Your task to perform on an android device: turn on javascript in the chrome app Image 0: 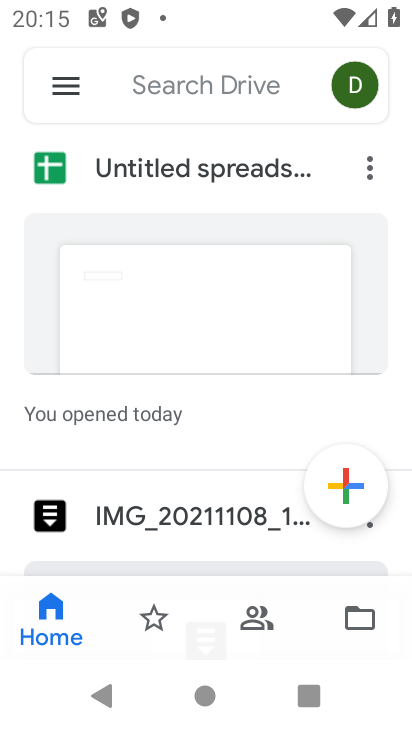
Step 0: press home button
Your task to perform on an android device: turn on javascript in the chrome app Image 1: 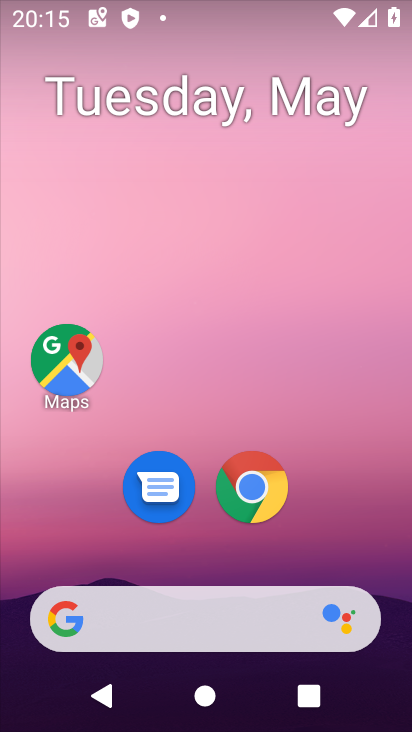
Step 1: click (263, 501)
Your task to perform on an android device: turn on javascript in the chrome app Image 2: 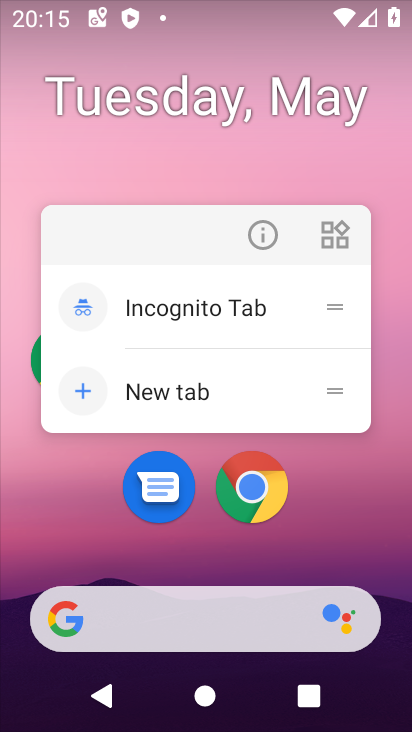
Step 2: click (263, 501)
Your task to perform on an android device: turn on javascript in the chrome app Image 3: 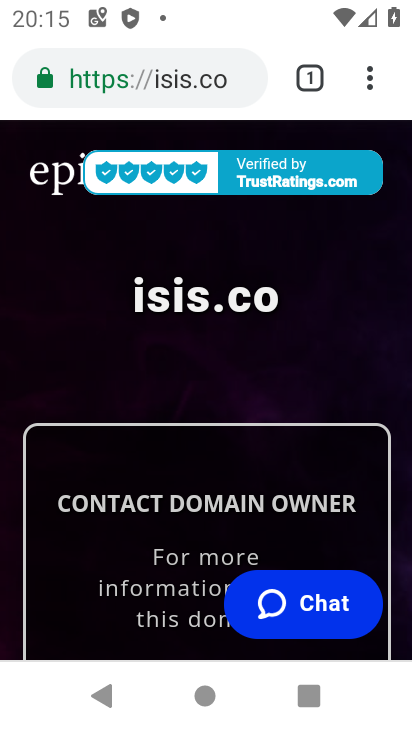
Step 3: click (363, 86)
Your task to perform on an android device: turn on javascript in the chrome app Image 4: 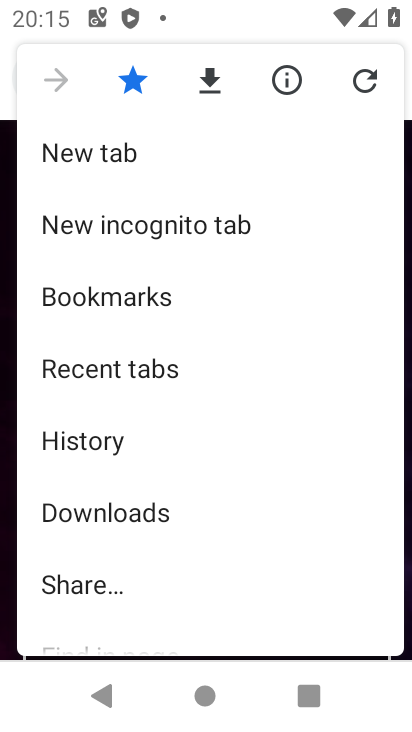
Step 4: drag from (186, 537) to (181, 360)
Your task to perform on an android device: turn on javascript in the chrome app Image 5: 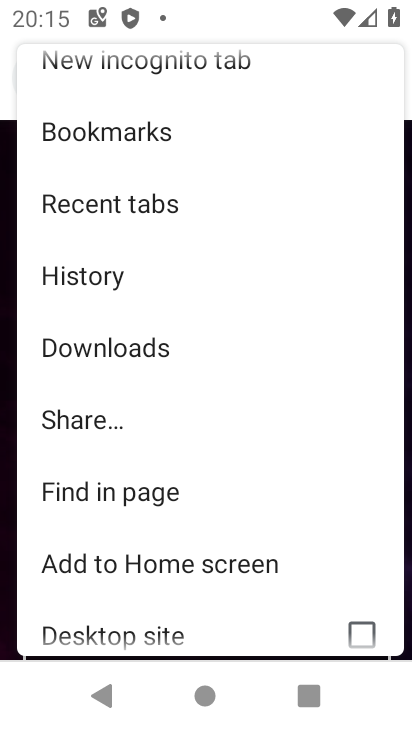
Step 5: drag from (189, 614) to (197, 363)
Your task to perform on an android device: turn on javascript in the chrome app Image 6: 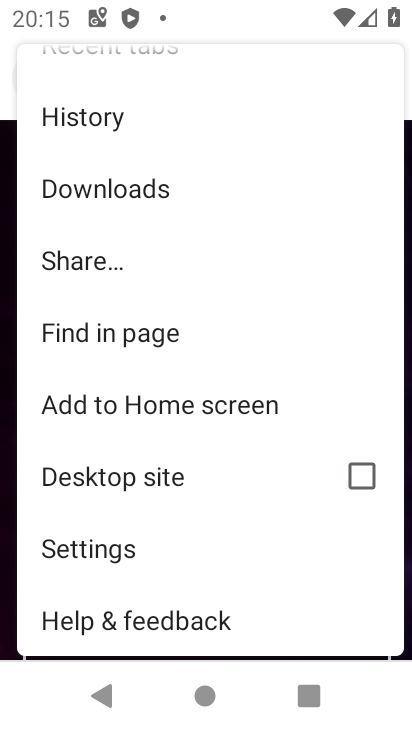
Step 6: click (174, 541)
Your task to perform on an android device: turn on javascript in the chrome app Image 7: 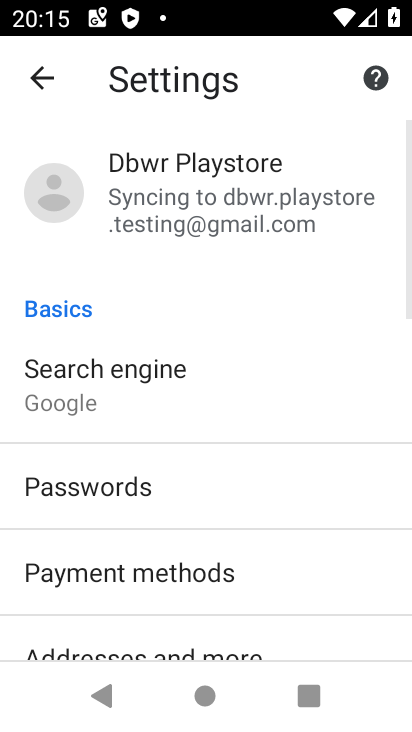
Step 7: drag from (174, 541) to (197, 227)
Your task to perform on an android device: turn on javascript in the chrome app Image 8: 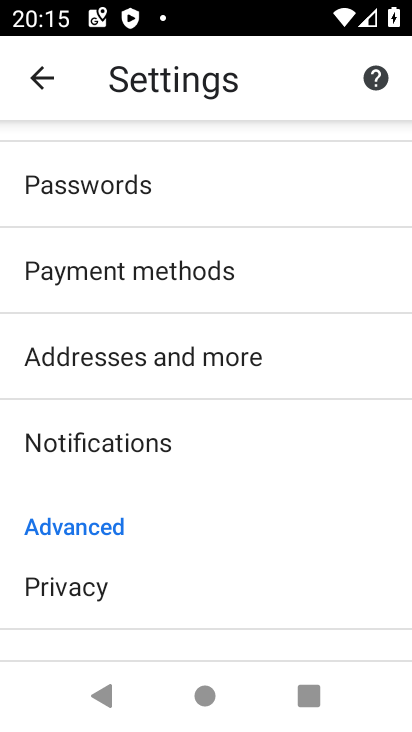
Step 8: drag from (226, 507) to (229, 338)
Your task to perform on an android device: turn on javascript in the chrome app Image 9: 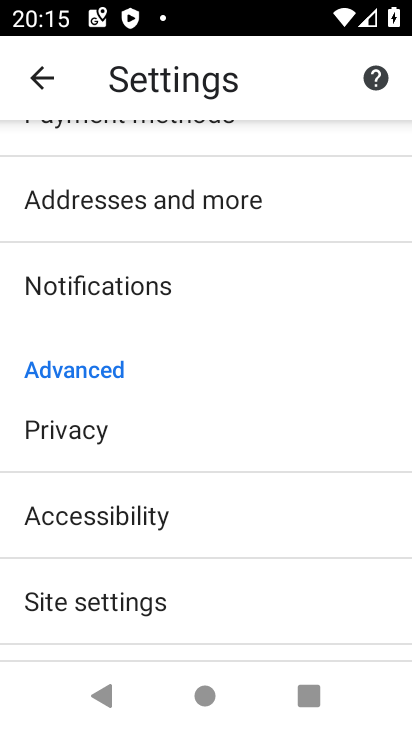
Step 9: drag from (253, 554) to (231, 593)
Your task to perform on an android device: turn on javascript in the chrome app Image 10: 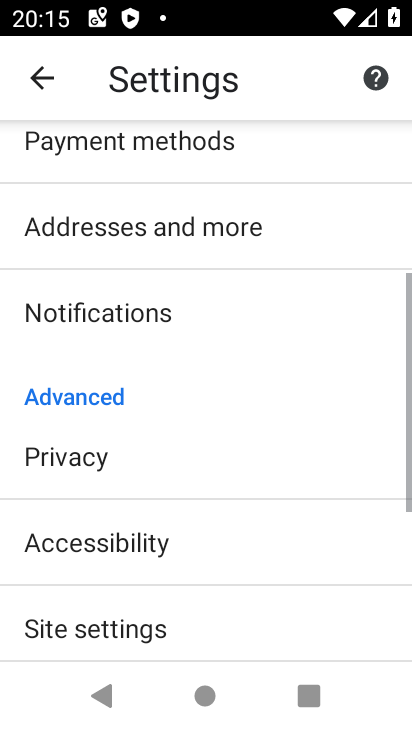
Step 10: drag from (231, 593) to (229, 548)
Your task to perform on an android device: turn on javascript in the chrome app Image 11: 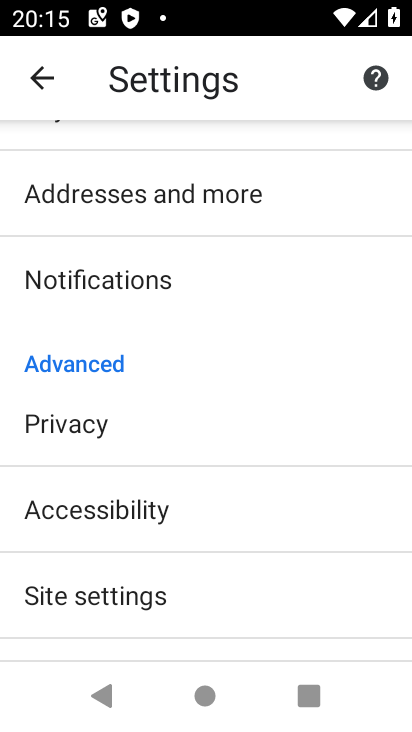
Step 11: click (225, 620)
Your task to perform on an android device: turn on javascript in the chrome app Image 12: 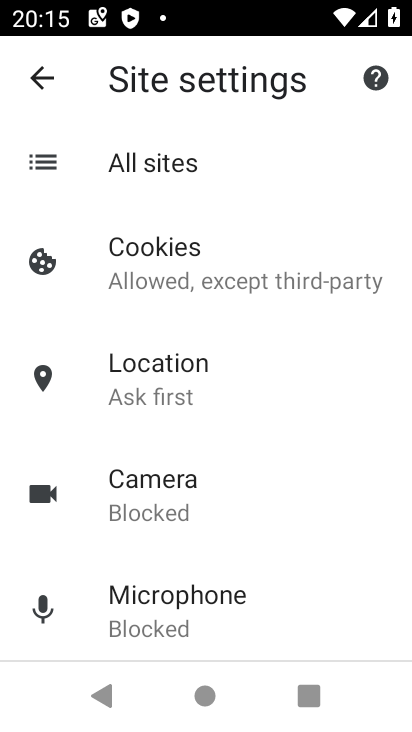
Step 12: drag from (225, 620) to (214, 327)
Your task to perform on an android device: turn on javascript in the chrome app Image 13: 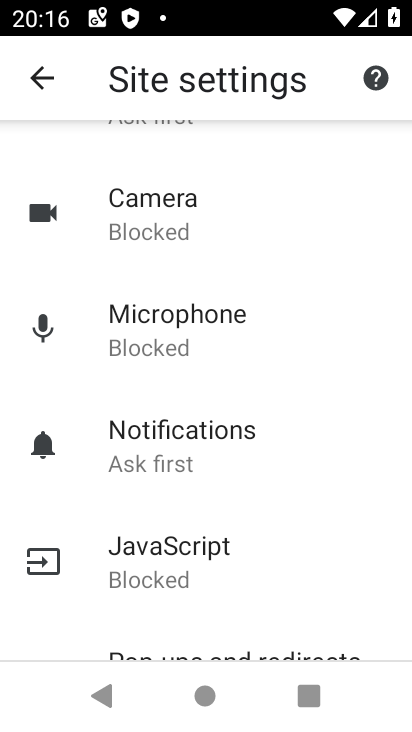
Step 13: click (227, 539)
Your task to perform on an android device: turn on javascript in the chrome app Image 14: 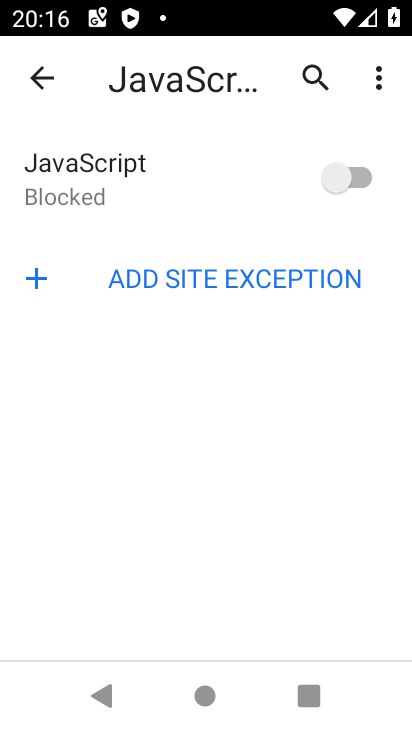
Step 14: click (344, 200)
Your task to perform on an android device: turn on javascript in the chrome app Image 15: 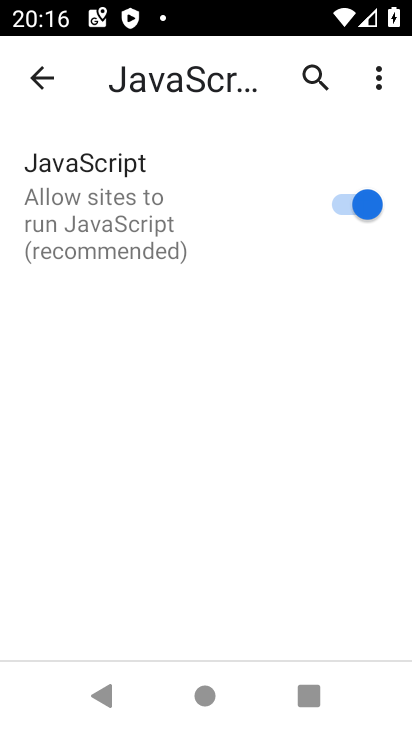
Step 15: task complete